Your task to perform on an android device: Search for pizza restaurants on Maps Image 0: 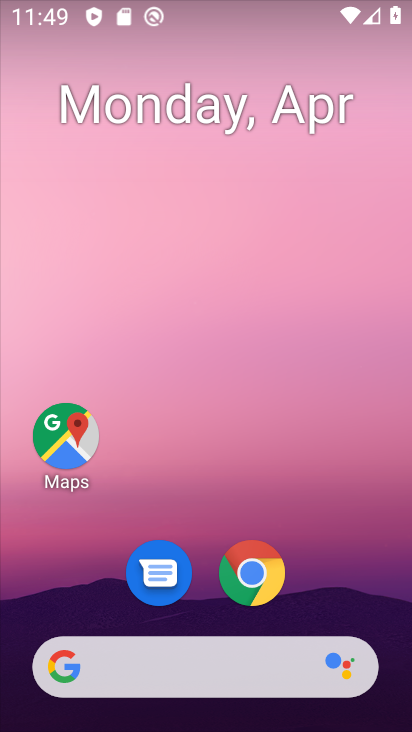
Step 0: click (49, 441)
Your task to perform on an android device: Search for pizza restaurants on Maps Image 1: 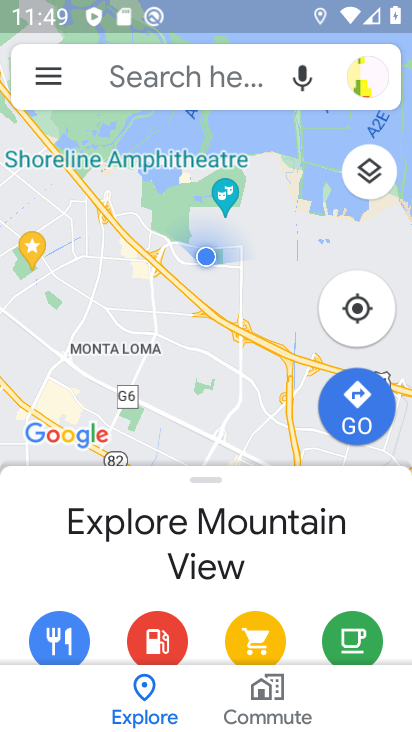
Step 1: click (179, 74)
Your task to perform on an android device: Search for pizza restaurants on Maps Image 2: 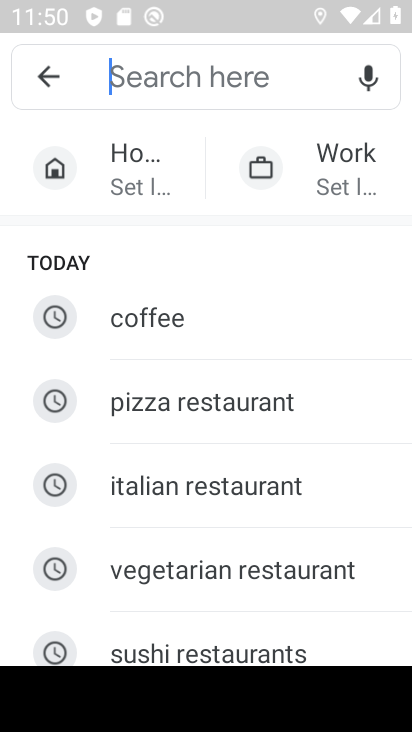
Step 2: click (216, 393)
Your task to perform on an android device: Search for pizza restaurants on Maps Image 3: 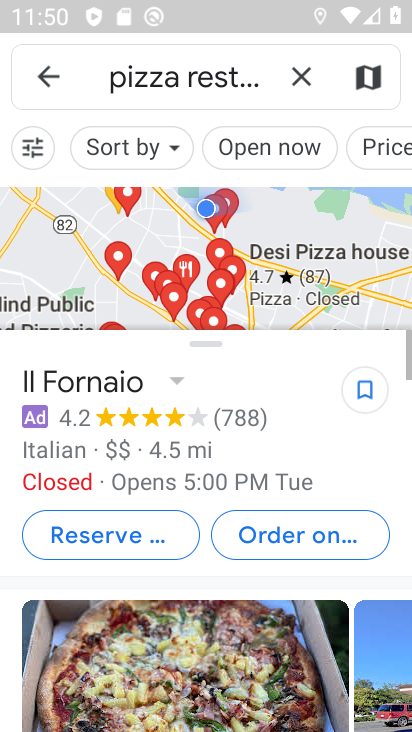
Step 3: task complete